Your task to perform on an android device: Go to eBay Image 0: 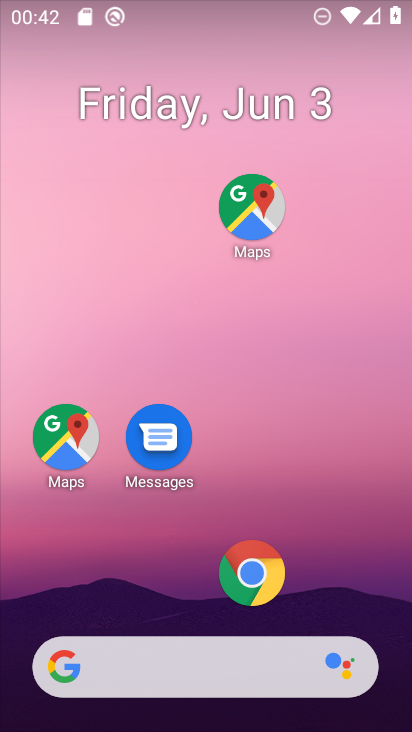
Step 0: click (255, 575)
Your task to perform on an android device: Go to eBay Image 1: 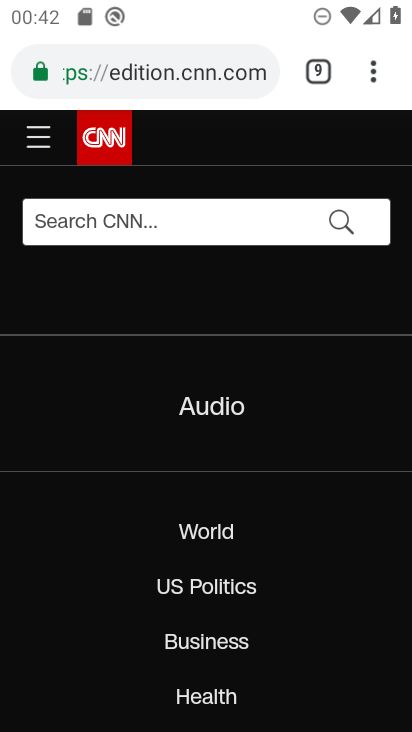
Step 1: click (322, 60)
Your task to perform on an android device: Go to eBay Image 2: 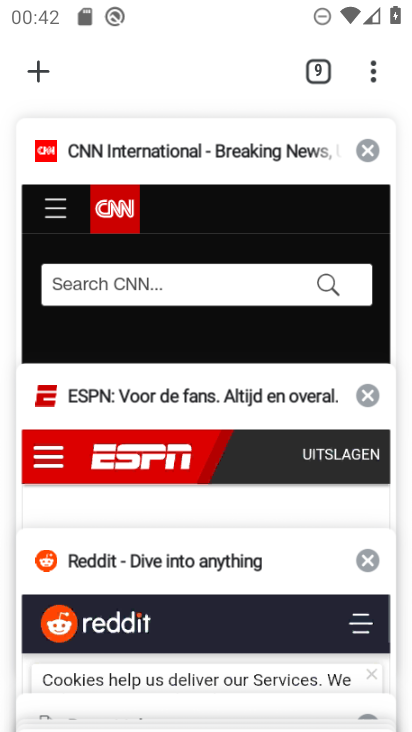
Step 2: drag from (241, 207) to (237, 462)
Your task to perform on an android device: Go to eBay Image 3: 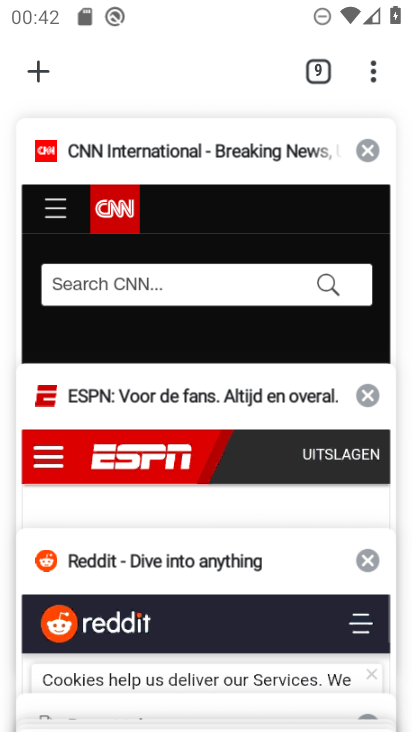
Step 3: drag from (237, 462) to (204, 198)
Your task to perform on an android device: Go to eBay Image 4: 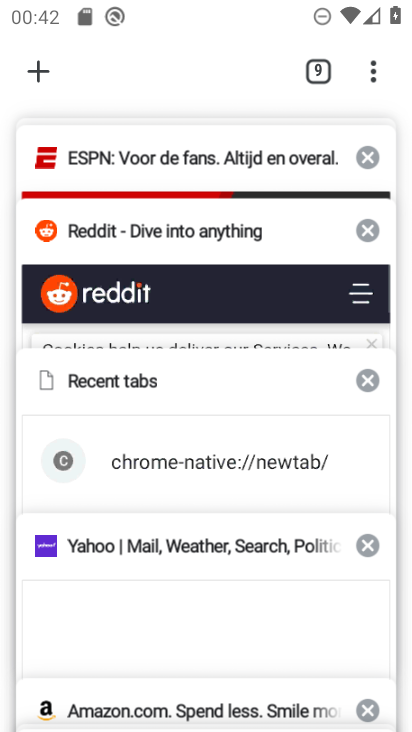
Step 4: drag from (208, 284) to (202, 185)
Your task to perform on an android device: Go to eBay Image 5: 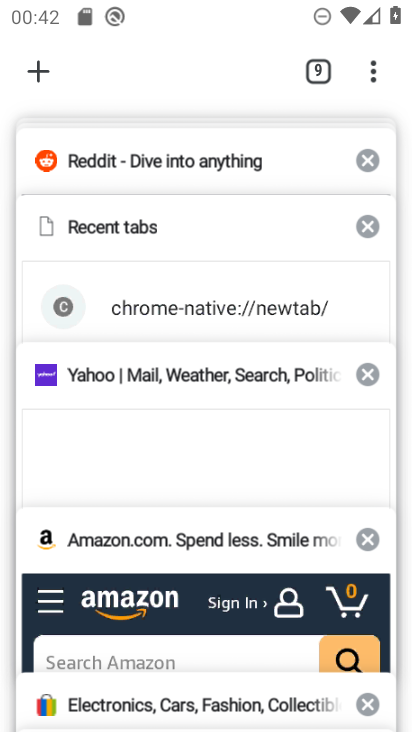
Step 5: drag from (196, 575) to (226, 141)
Your task to perform on an android device: Go to eBay Image 6: 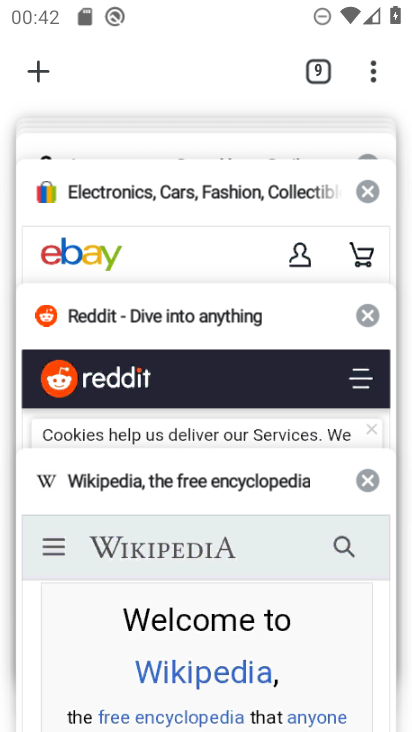
Step 6: click (222, 262)
Your task to perform on an android device: Go to eBay Image 7: 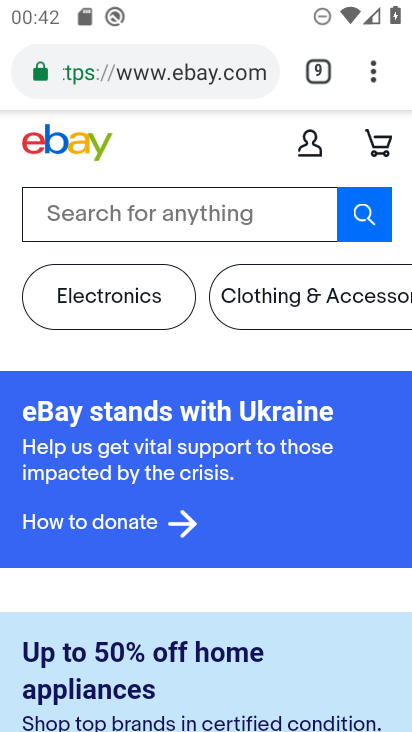
Step 7: task complete